Your task to perform on an android device: turn on the 12-hour format for clock Image 0: 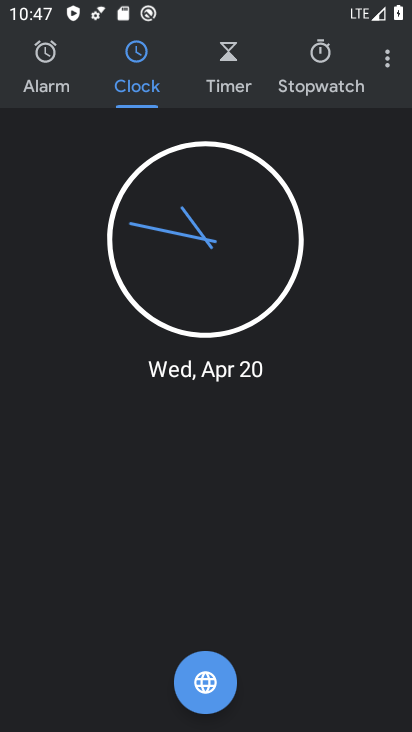
Step 0: drag from (386, 63) to (322, 101)
Your task to perform on an android device: turn on the 12-hour format for clock Image 1: 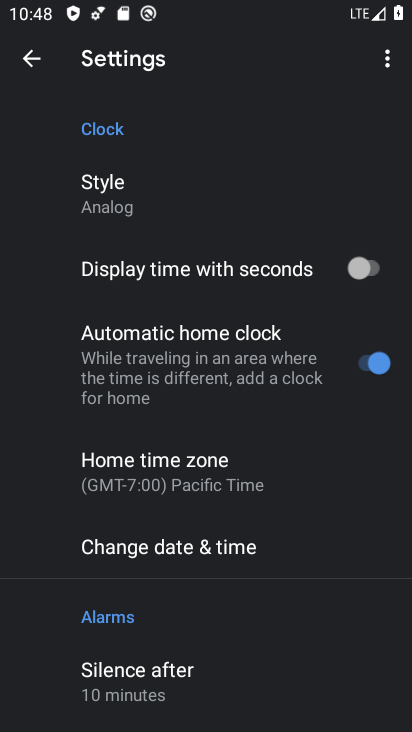
Step 1: drag from (219, 611) to (300, 201)
Your task to perform on an android device: turn on the 12-hour format for clock Image 2: 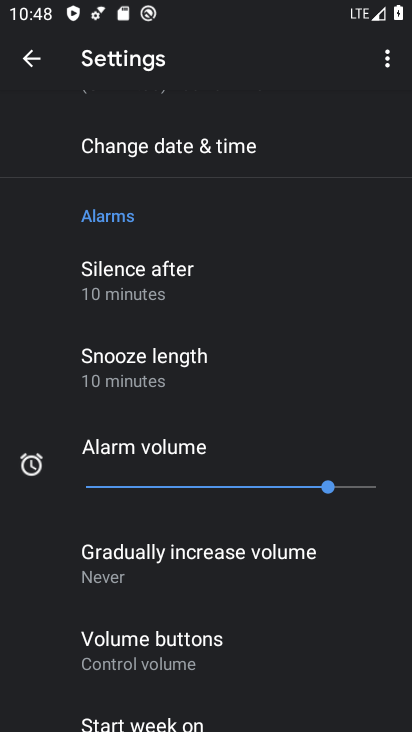
Step 2: click (237, 157)
Your task to perform on an android device: turn on the 12-hour format for clock Image 3: 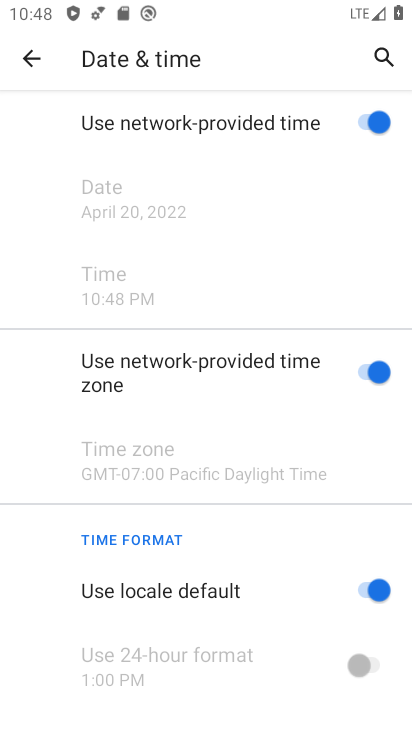
Step 3: task complete